Your task to perform on an android device: toggle show notifications on the lock screen Image 0: 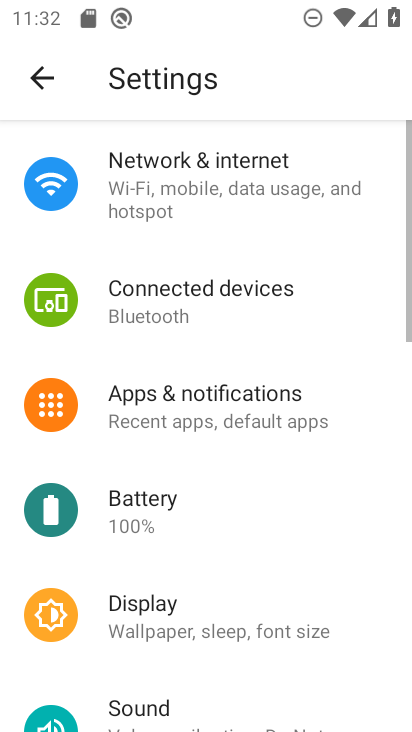
Step 0: press home button
Your task to perform on an android device: toggle show notifications on the lock screen Image 1: 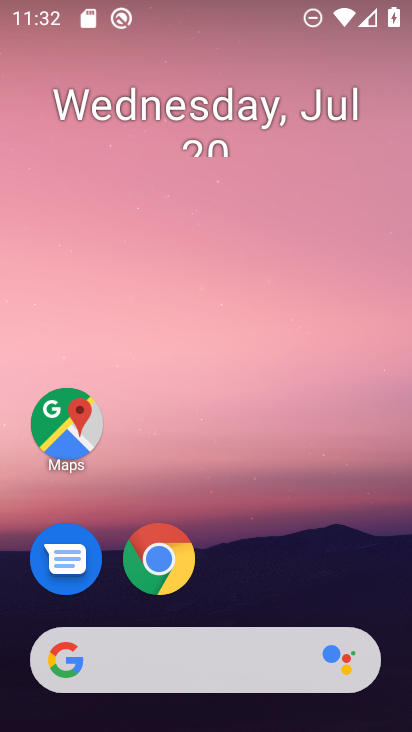
Step 1: drag from (212, 678) to (250, 237)
Your task to perform on an android device: toggle show notifications on the lock screen Image 2: 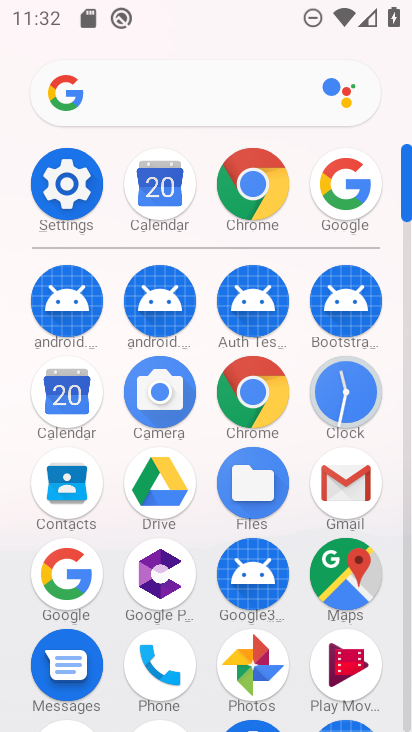
Step 2: click (70, 198)
Your task to perform on an android device: toggle show notifications on the lock screen Image 3: 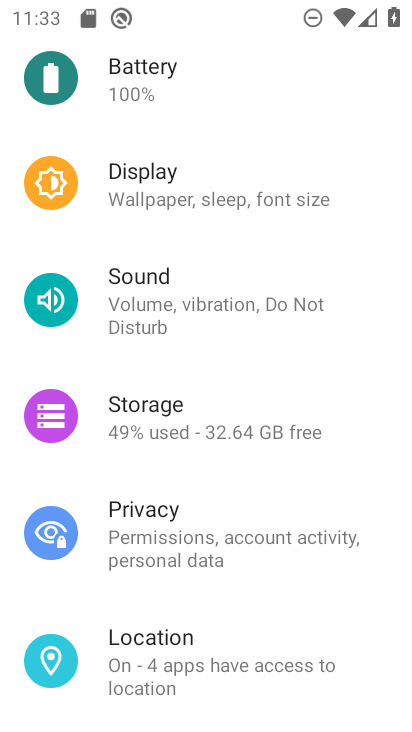
Step 3: drag from (161, 195) to (172, 656)
Your task to perform on an android device: toggle show notifications on the lock screen Image 4: 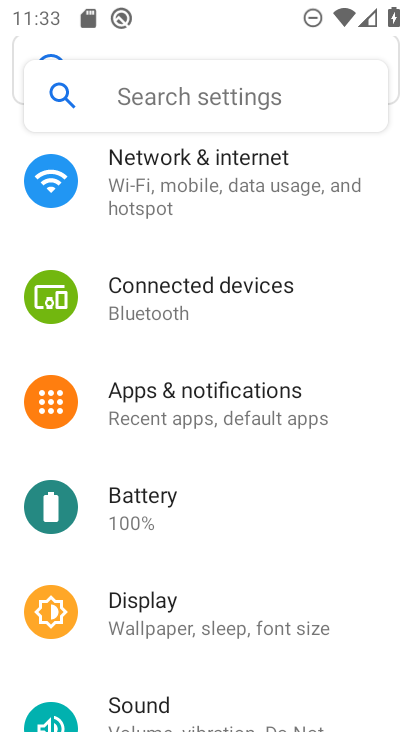
Step 4: click (249, 407)
Your task to perform on an android device: toggle show notifications on the lock screen Image 5: 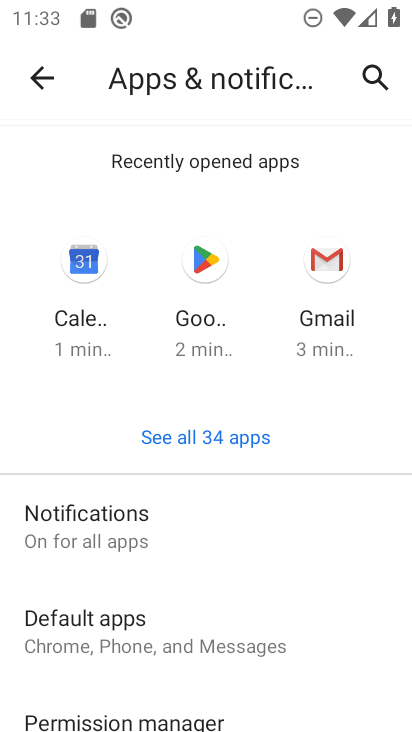
Step 5: click (164, 525)
Your task to perform on an android device: toggle show notifications on the lock screen Image 6: 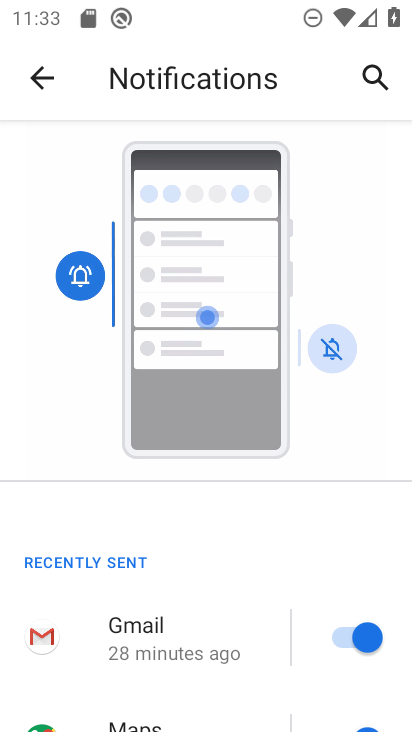
Step 6: drag from (148, 463) to (168, 119)
Your task to perform on an android device: toggle show notifications on the lock screen Image 7: 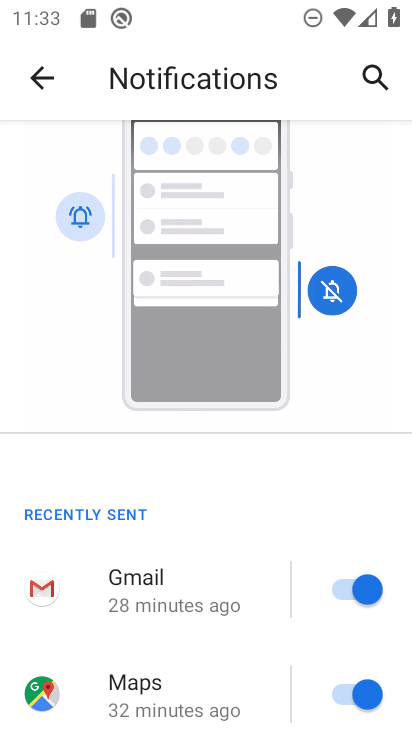
Step 7: click (249, 232)
Your task to perform on an android device: toggle show notifications on the lock screen Image 8: 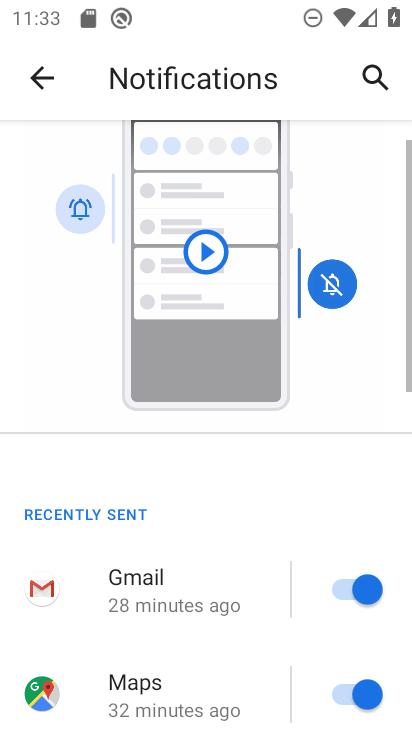
Step 8: drag from (215, 466) to (248, 93)
Your task to perform on an android device: toggle show notifications on the lock screen Image 9: 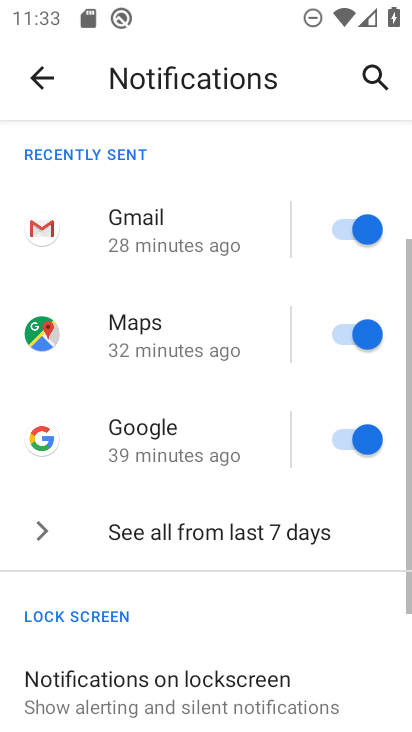
Step 9: drag from (207, 573) to (234, 153)
Your task to perform on an android device: toggle show notifications on the lock screen Image 10: 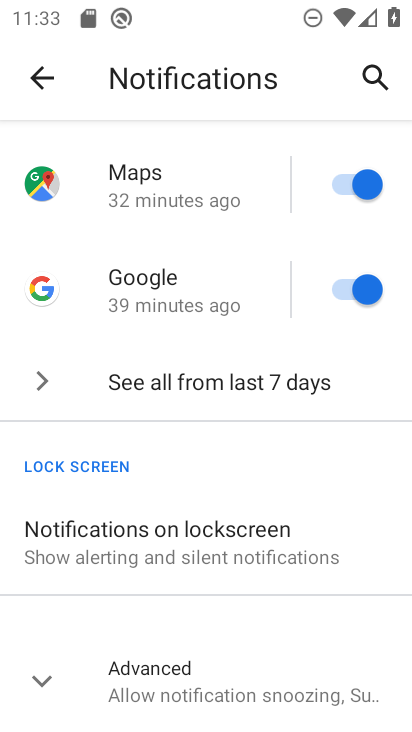
Step 10: click (226, 529)
Your task to perform on an android device: toggle show notifications on the lock screen Image 11: 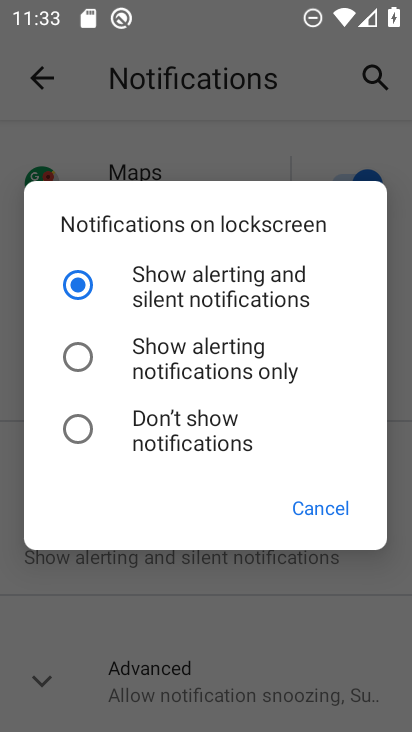
Step 11: click (83, 421)
Your task to perform on an android device: toggle show notifications on the lock screen Image 12: 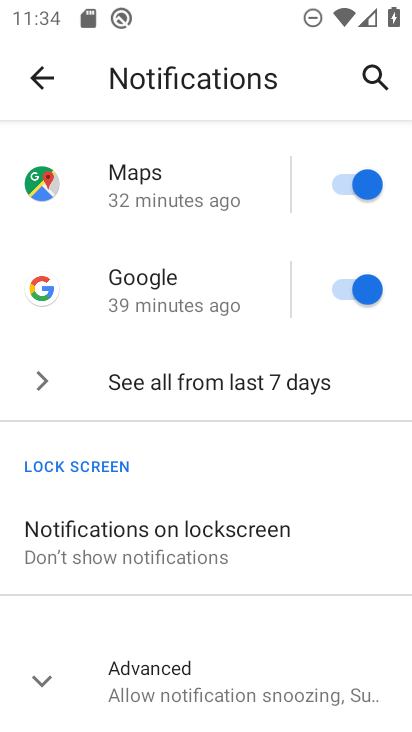
Step 12: task complete